Your task to perform on an android device: turn on data saver in the chrome app Image 0: 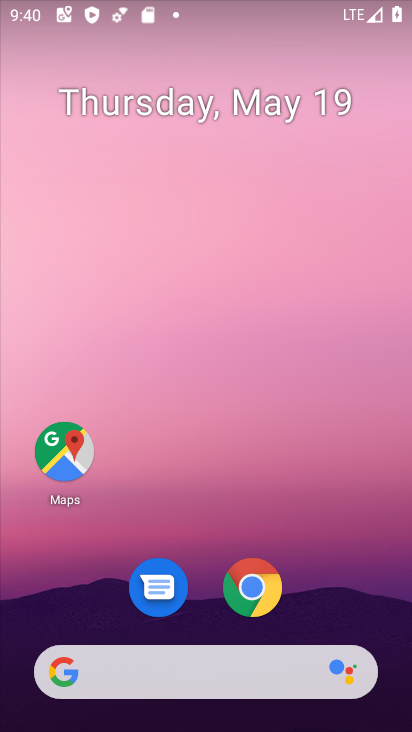
Step 0: click (254, 576)
Your task to perform on an android device: turn on data saver in the chrome app Image 1: 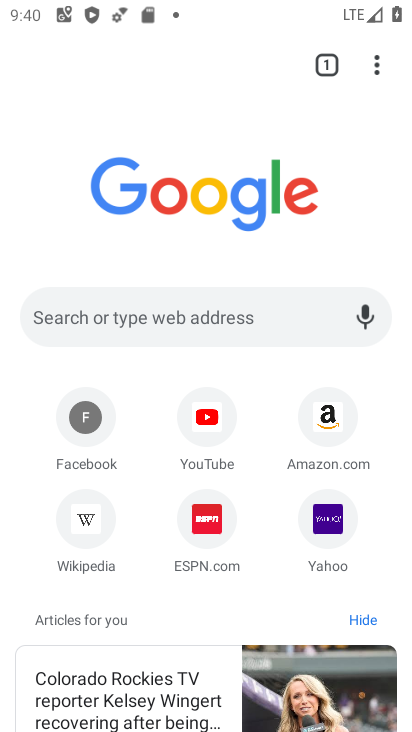
Step 1: click (386, 57)
Your task to perform on an android device: turn on data saver in the chrome app Image 2: 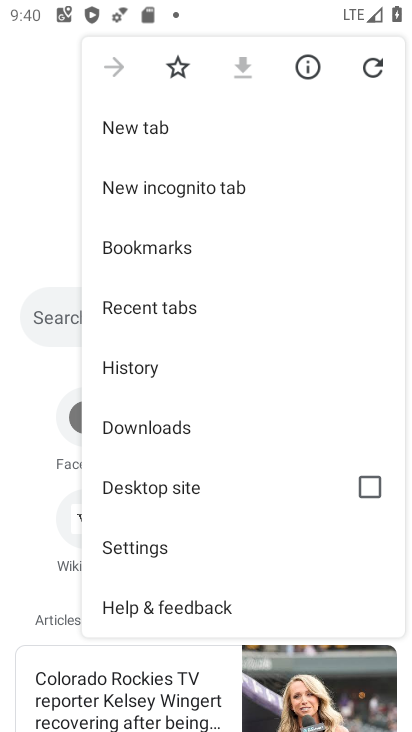
Step 2: click (224, 554)
Your task to perform on an android device: turn on data saver in the chrome app Image 3: 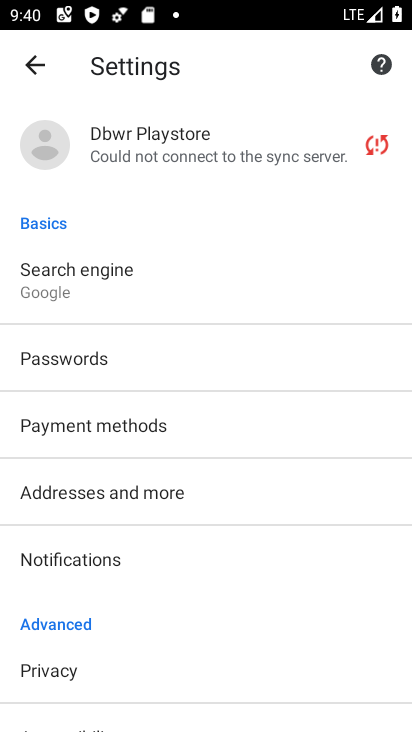
Step 3: drag from (94, 687) to (126, 162)
Your task to perform on an android device: turn on data saver in the chrome app Image 4: 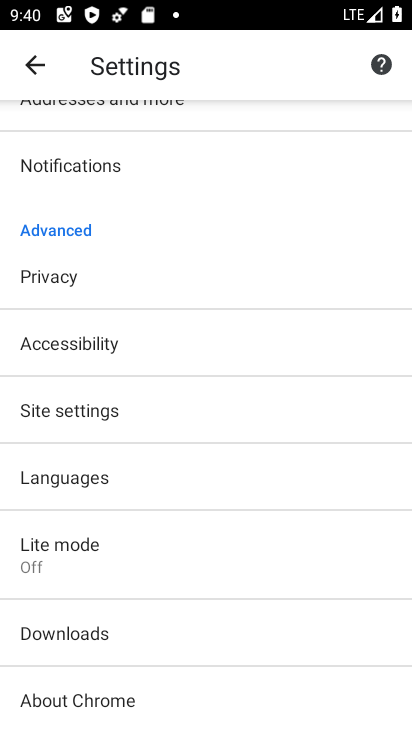
Step 4: click (81, 533)
Your task to perform on an android device: turn on data saver in the chrome app Image 5: 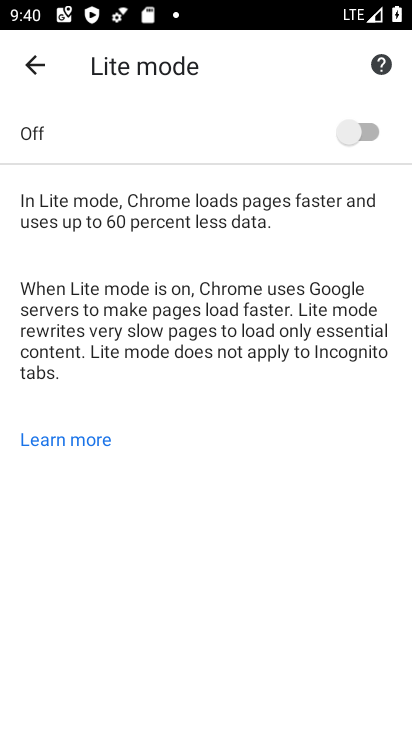
Step 5: click (372, 132)
Your task to perform on an android device: turn on data saver in the chrome app Image 6: 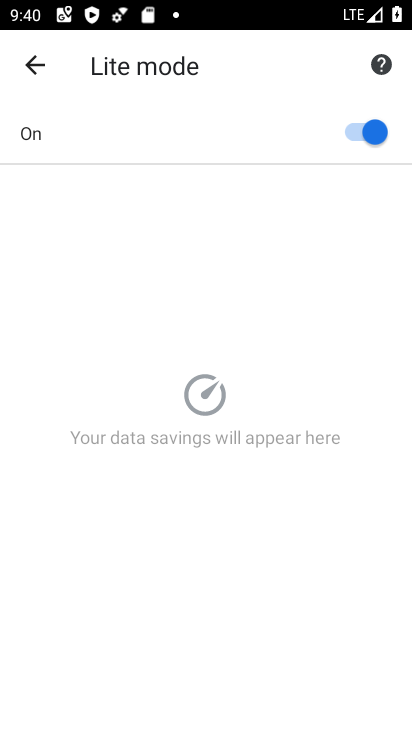
Step 6: task complete